Your task to perform on an android device: View the shopping cart on ebay. Search for "logitech g pro" on ebay, select the first entry, add it to the cart, then select checkout. Image 0: 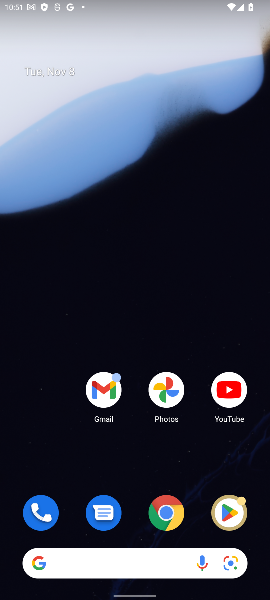
Step 0: click (172, 524)
Your task to perform on an android device: View the shopping cart on ebay. Search for "logitech g pro" on ebay, select the first entry, add it to the cart, then select checkout. Image 1: 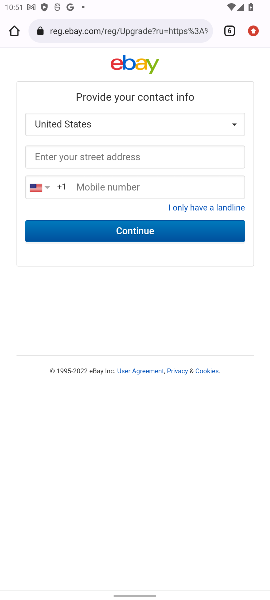
Step 1: task complete